Your task to perform on an android device: change notifications settings Image 0: 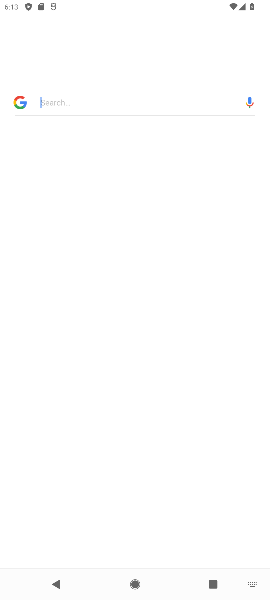
Step 0: press home button
Your task to perform on an android device: change notifications settings Image 1: 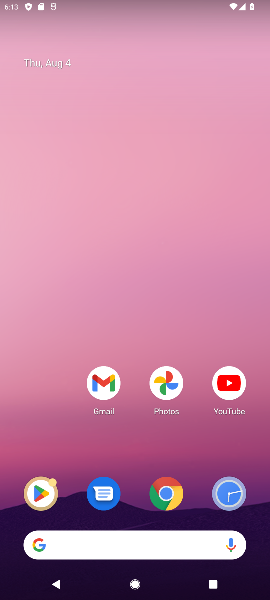
Step 1: drag from (131, 475) to (153, 78)
Your task to perform on an android device: change notifications settings Image 2: 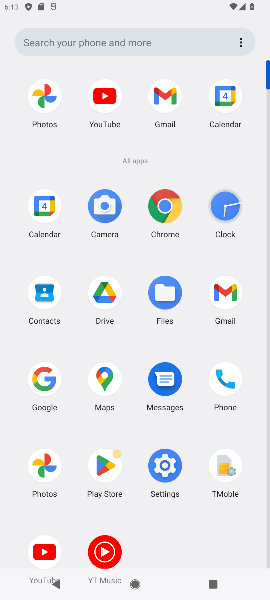
Step 2: click (161, 461)
Your task to perform on an android device: change notifications settings Image 3: 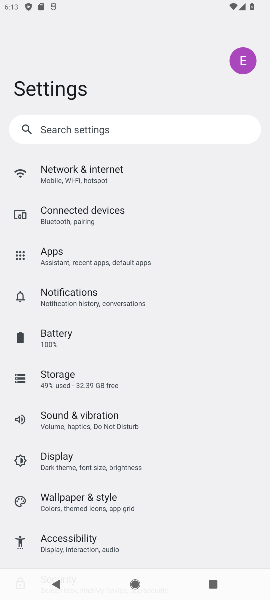
Step 3: click (87, 296)
Your task to perform on an android device: change notifications settings Image 4: 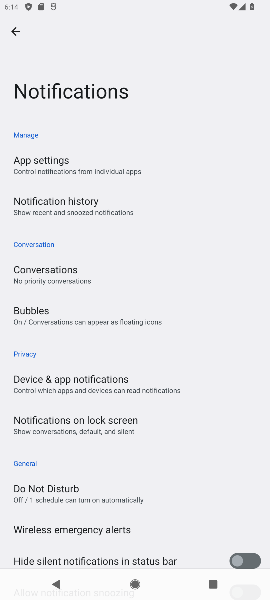
Step 4: drag from (67, 436) to (101, 146)
Your task to perform on an android device: change notifications settings Image 5: 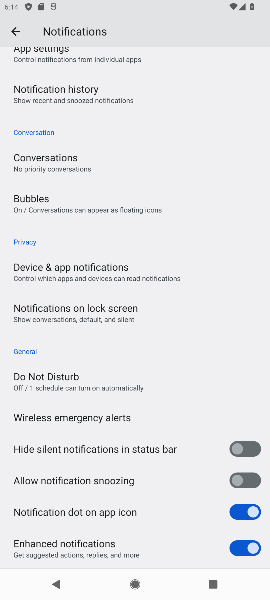
Step 5: drag from (108, 156) to (107, 382)
Your task to perform on an android device: change notifications settings Image 6: 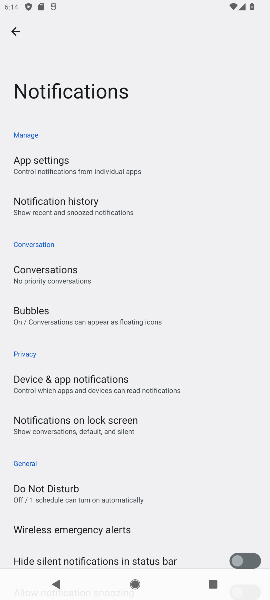
Step 6: click (70, 165)
Your task to perform on an android device: change notifications settings Image 7: 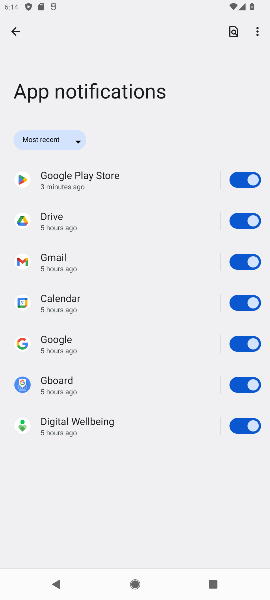
Step 7: click (242, 171)
Your task to perform on an android device: change notifications settings Image 8: 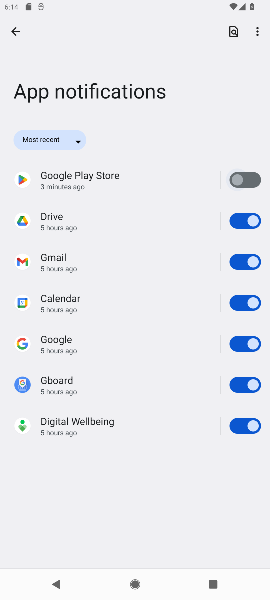
Step 8: click (247, 212)
Your task to perform on an android device: change notifications settings Image 9: 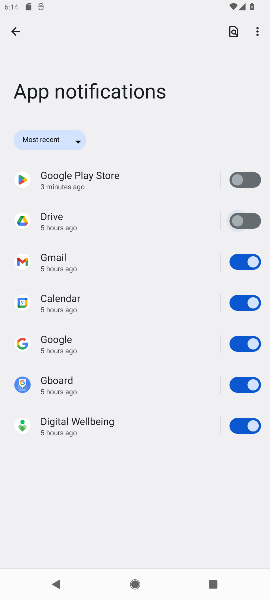
Step 9: click (246, 259)
Your task to perform on an android device: change notifications settings Image 10: 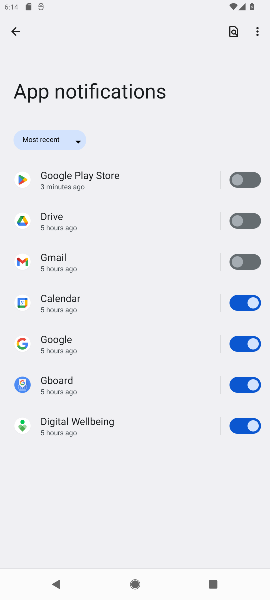
Step 10: click (248, 304)
Your task to perform on an android device: change notifications settings Image 11: 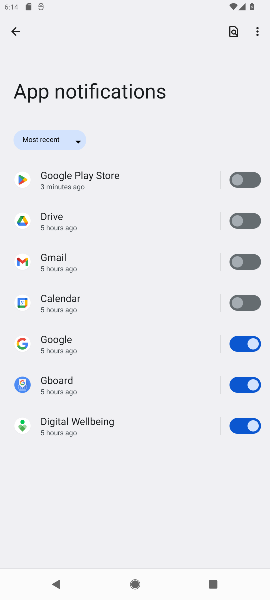
Step 11: click (242, 346)
Your task to perform on an android device: change notifications settings Image 12: 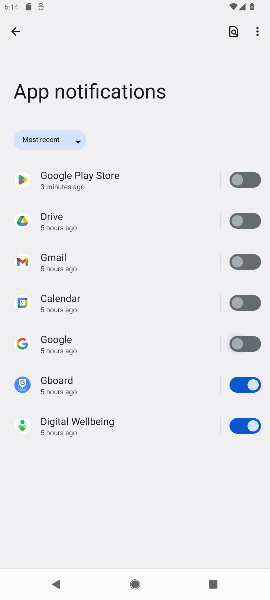
Step 12: click (241, 374)
Your task to perform on an android device: change notifications settings Image 13: 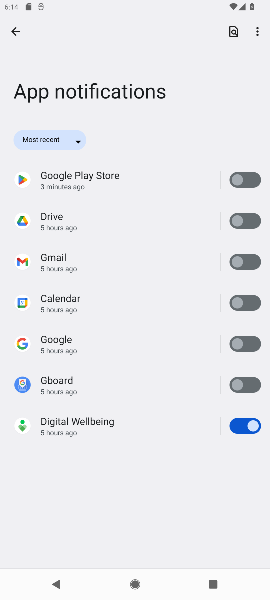
Step 13: click (240, 423)
Your task to perform on an android device: change notifications settings Image 14: 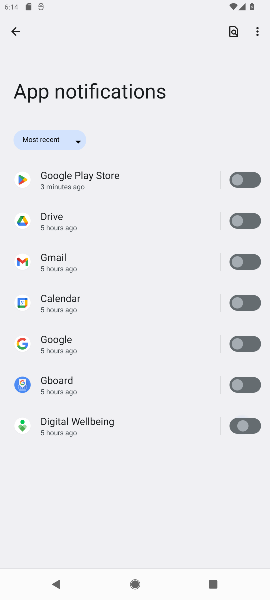
Step 14: click (244, 378)
Your task to perform on an android device: change notifications settings Image 15: 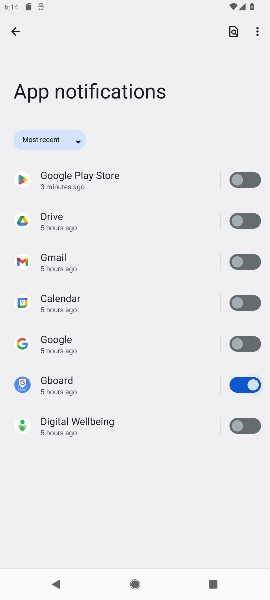
Step 15: click (242, 426)
Your task to perform on an android device: change notifications settings Image 16: 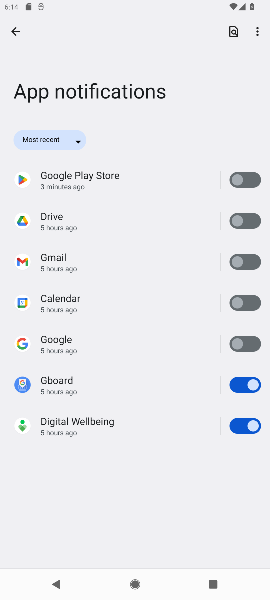
Step 16: task complete